Your task to perform on an android device: Go to Google Image 0: 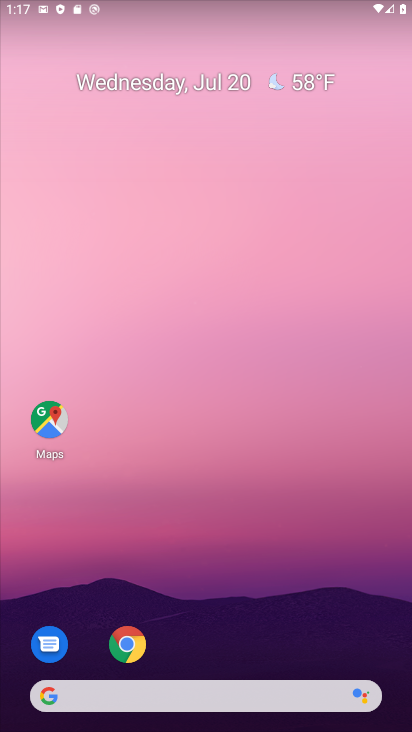
Step 0: drag from (264, 637) to (330, 102)
Your task to perform on an android device: Go to Google Image 1: 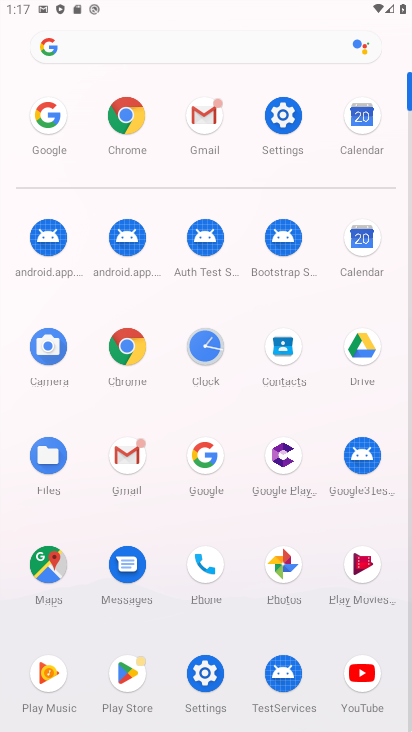
Step 1: click (209, 458)
Your task to perform on an android device: Go to Google Image 2: 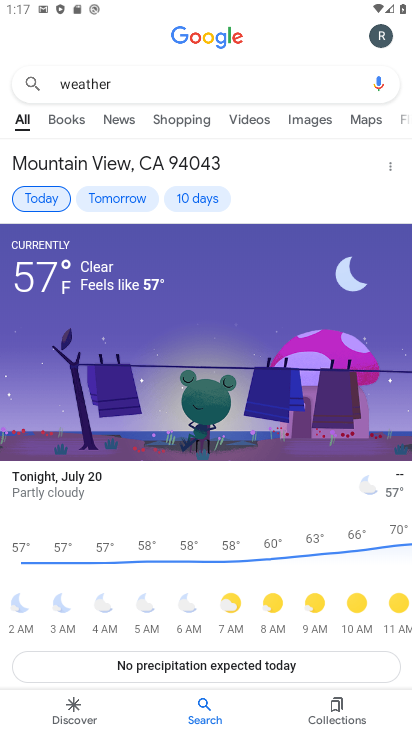
Step 2: task complete